Your task to perform on an android device: move an email to a new category in the gmail app Image 0: 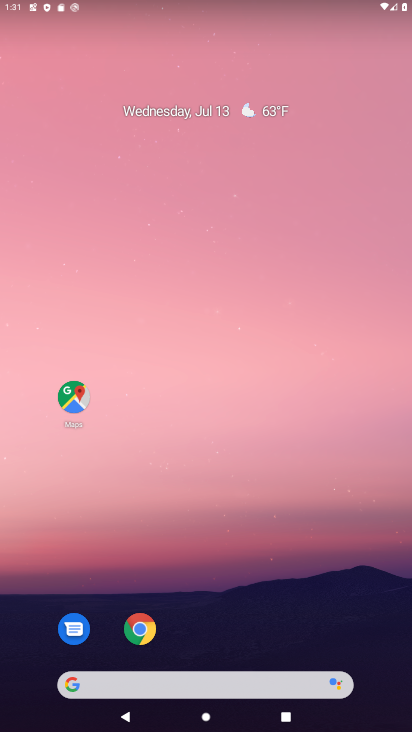
Step 0: click (214, 75)
Your task to perform on an android device: move an email to a new category in the gmail app Image 1: 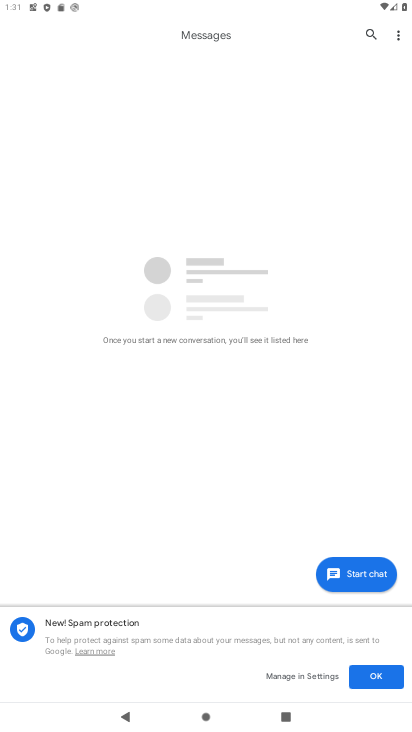
Step 1: drag from (215, 514) to (224, 201)
Your task to perform on an android device: move an email to a new category in the gmail app Image 2: 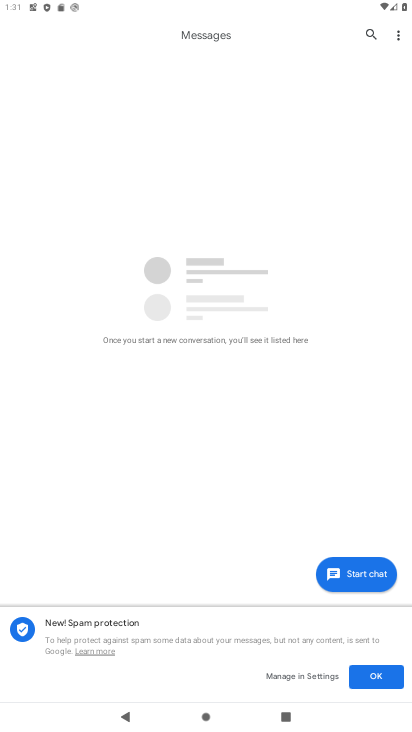
Step 2: press home button
Your task to perform on an android device: move an email to a new category in the gmail app Image 3: 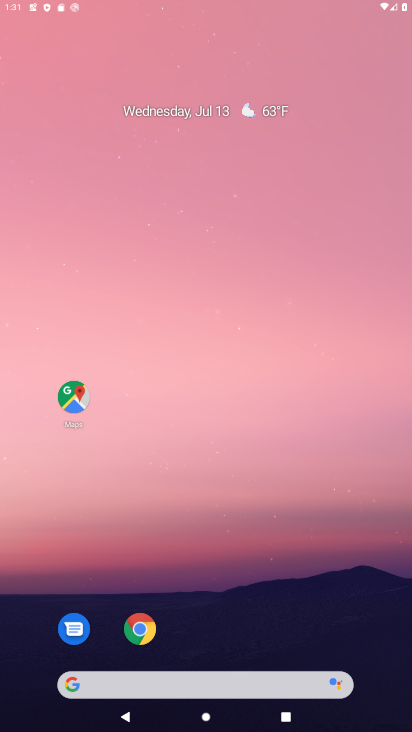
Step 3: drag from (188, 607) to (240, 3)
Your task to perform on an android device: move an email to a new category in the gmail app Image 4: 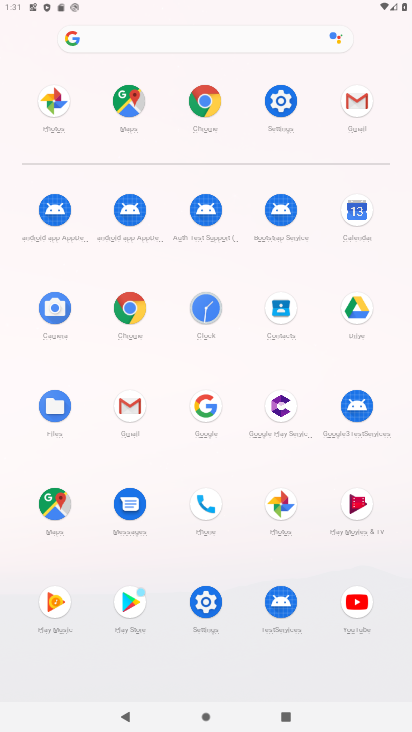
Step 4: click (128, 409)
Your task to perform on an android device: move an email to a new category in the gmail app Image 5: 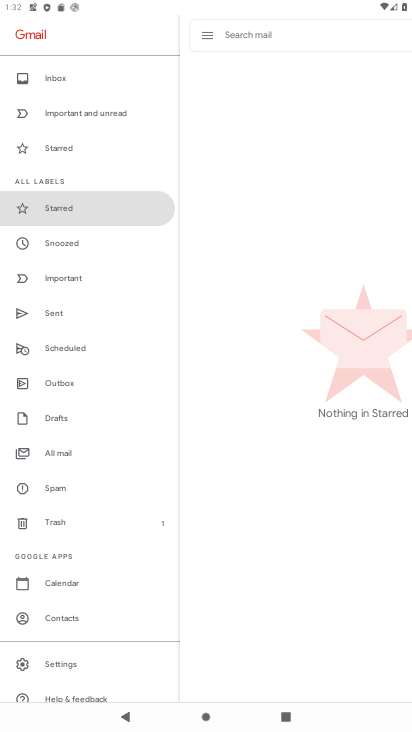
Step 5: drag from (96, 654) to (240, 18)
Your task to perform on an android device: move an email to a new category in the gmail app Image 6: 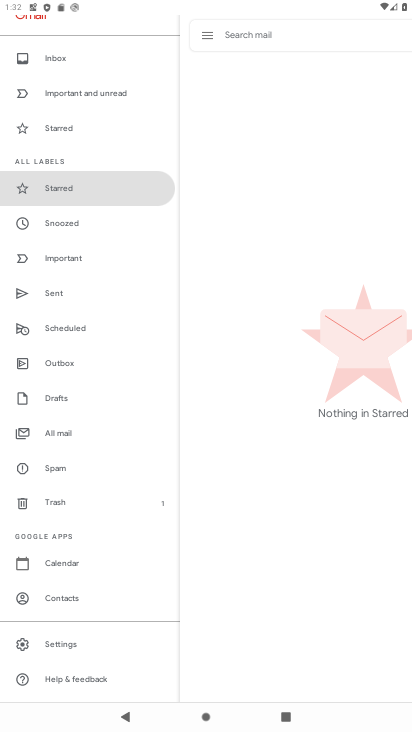
Step 6: drag from (94, 143) to (63, 675)
Your task to perform on an android device: move an email to a new category in the gmail app Image 7: 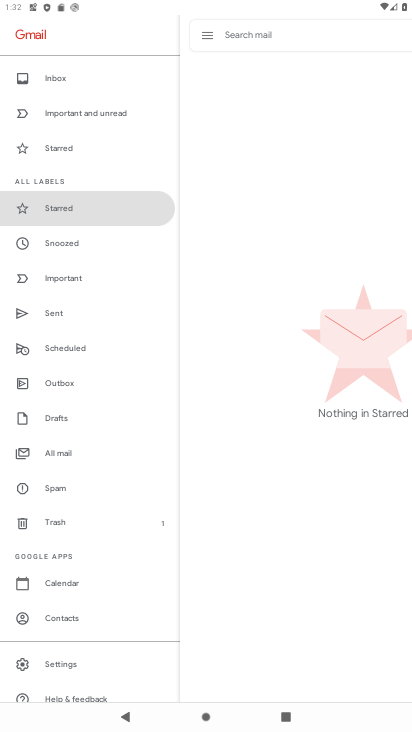
Step 7: click (187, 279)
Your task to perform on an android device: move an email to a new category in the gmail app Image 8: 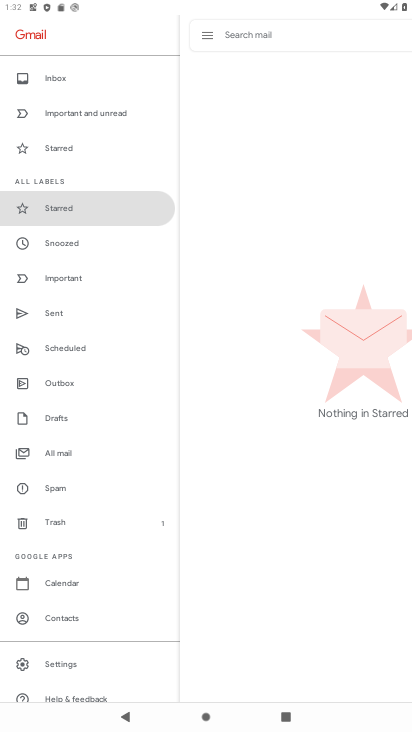
Step 8: task complete